Your task to perform on an android device: Show me productivity apps on the Play Store Image 0: 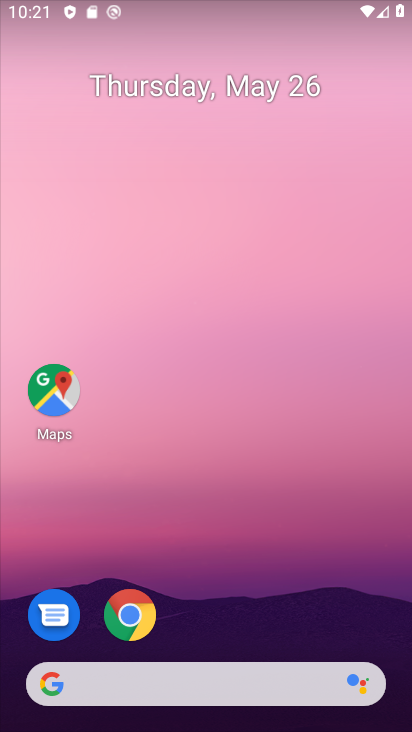
Step 0: drag from (287, 539) to (259, 188)
Your task to perform on an android device: Show me productivity apps on the Play Store Image 1: 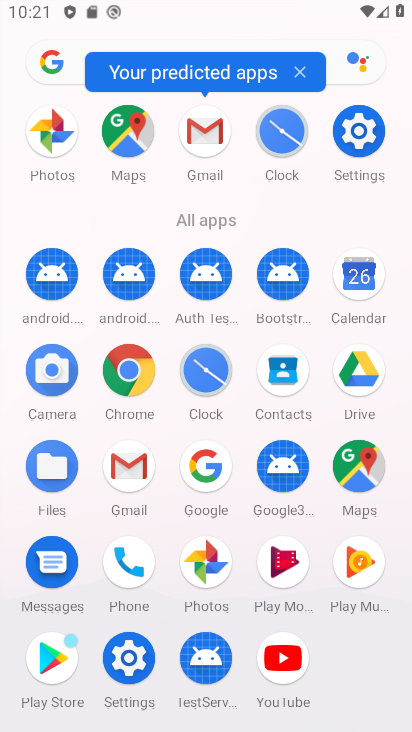
Step 1: click (51, 657)
Your task to perform on an android device: Show me productivity apps on the Play Store Image 2: 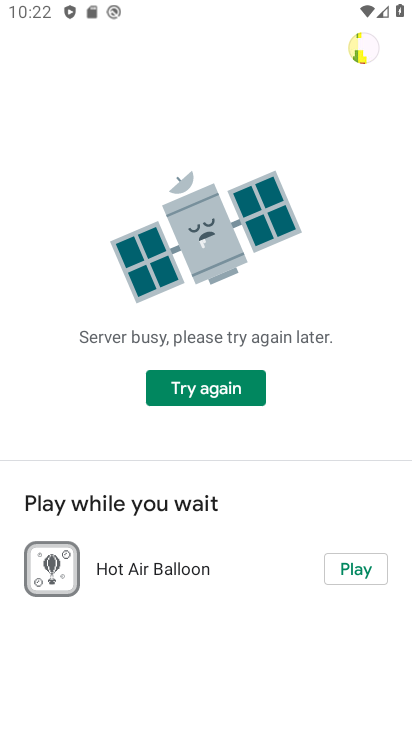
Step 2: click (232, 384)
Your task to perform on an android device: Show me productivity apps on the Play Store Image 3: 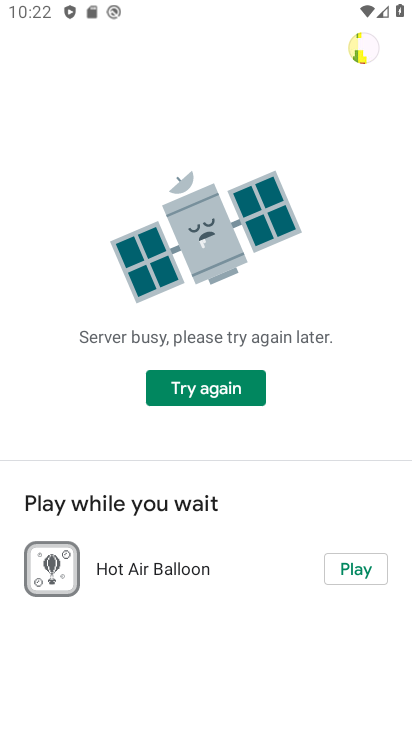
Step 3: task complete